Your task to perform on an android device: Go to network settings Image 0: 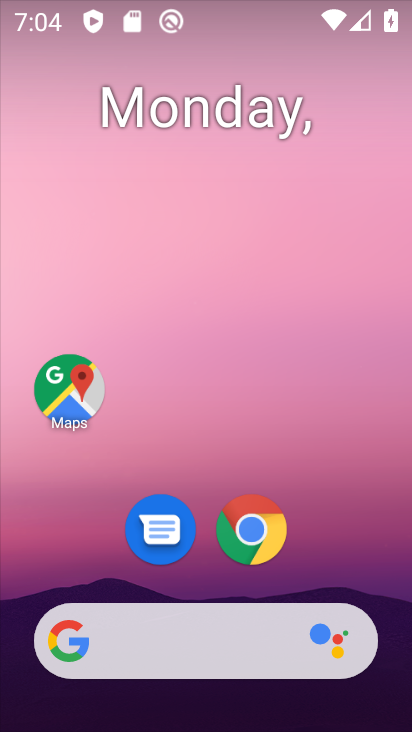
Step 0: drag from (317, 495) to (200, 132)
Your task to perform on an android device: Go to network settings Image 1: 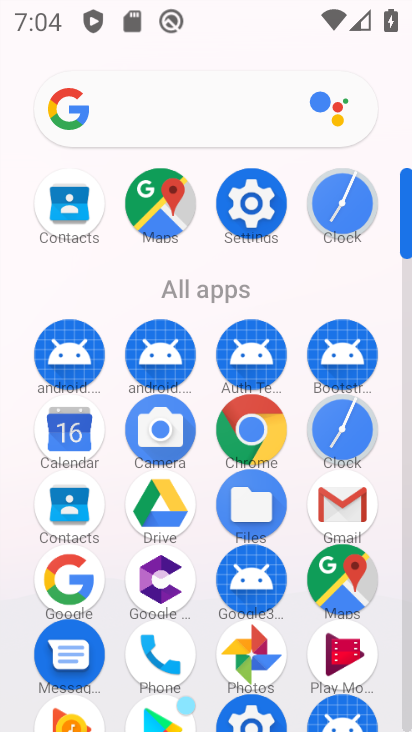
Step 1: click (253, 206)
Your task to perform on an android device: Go to network settings Image 2: 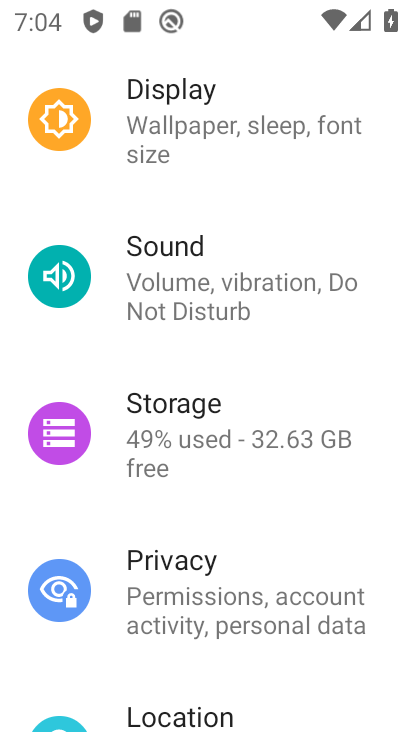
Step 2: drag from (238, 206) to (283, 628)
Your task to perform on an android device: Go to network settings Image 3: 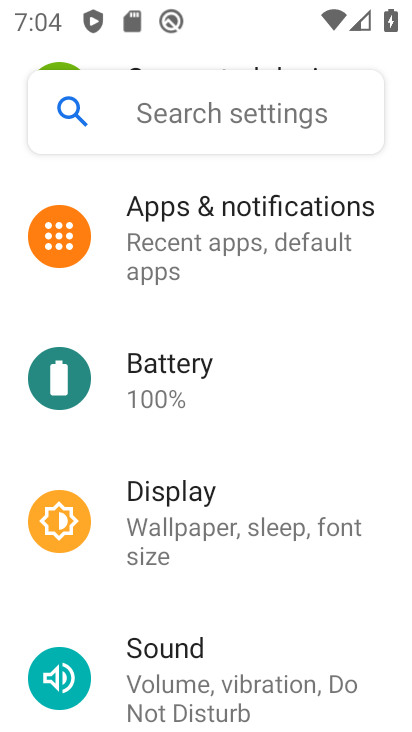
Step 3: drag from (192, 319) to (204, 727)
Your task to perform on an android device: Go to network settings Image 4: 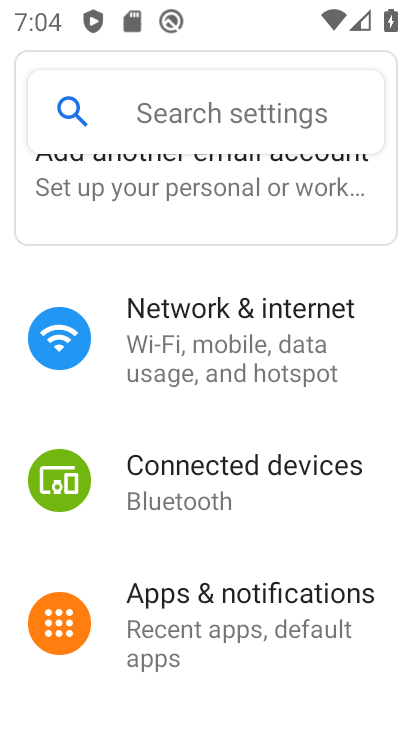
Step 4: click (243, 322)
Your task to perform on an android device: Go to network settings Image 5: 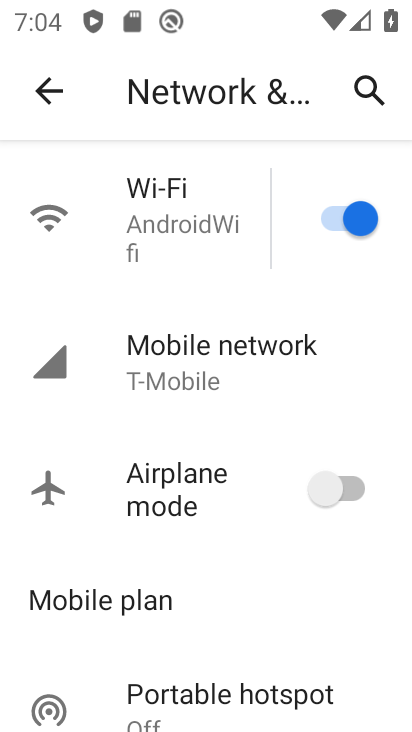
Step 5: click (238, 352)
Your task to perform on an android device: Go to network settings Image 6: 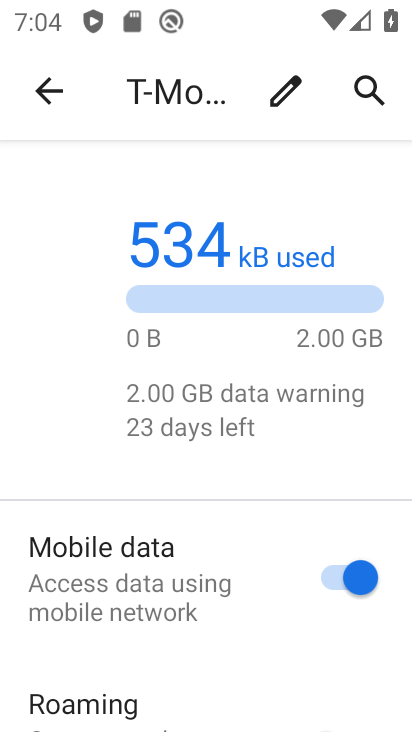
Step 6: task complete